Your task to perform on an android device: open app "Etsy: Buy & Sell Unique Items" Image 0: 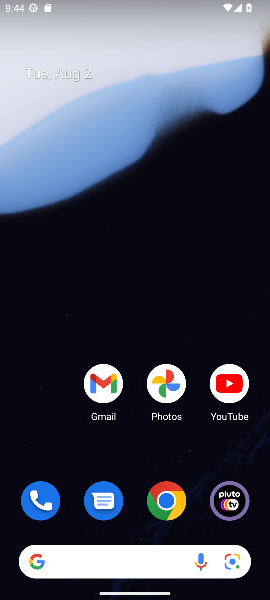
Step 0: drag from (130, 512) to (145, 140)
Your task to perform on an android device: open app "Etsy: Buy & Sell Unique Items" Image 1: 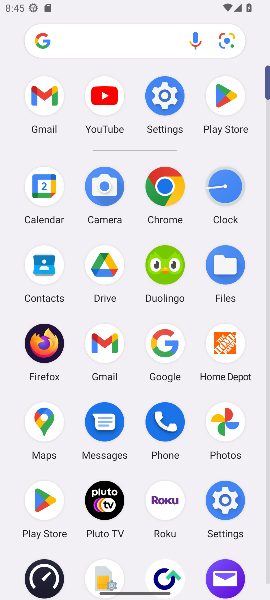
Step 1: click (221, 106)
Your task to perform on an android device: open app "Etsy: Buy & Sell Unique Items" Image 2: 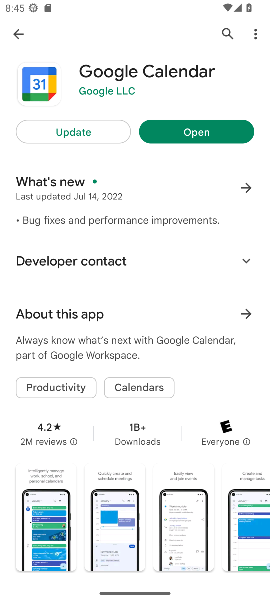
Step 2: drag from (124, 453) to (142, 131)
Your task to perform on an android device: open app "Etsy: Buy & Sell Unique Items" Image 3: 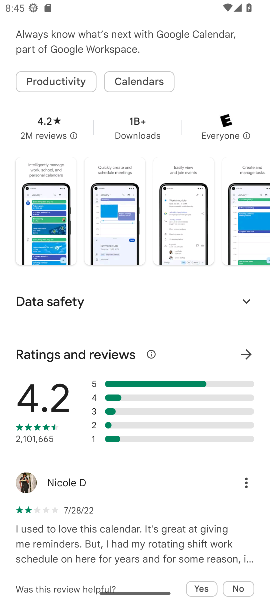
Step 3: drag from (128, 51) to (163, 448)
Your task to perform on an android device: open app "Etsy: Buy & Sell Unique Items" Image 4: 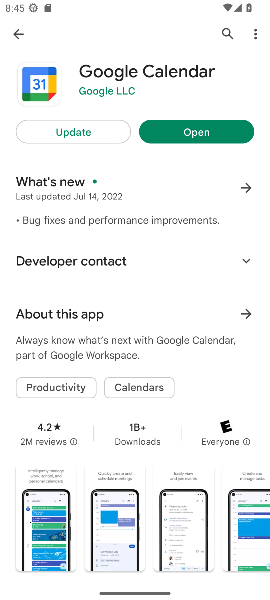
Step 4: drag from (156, 461) to (164, 185)
Your task to perform on an android device: open app "Etsy: Buy & Sell Unique Items" Image 5: 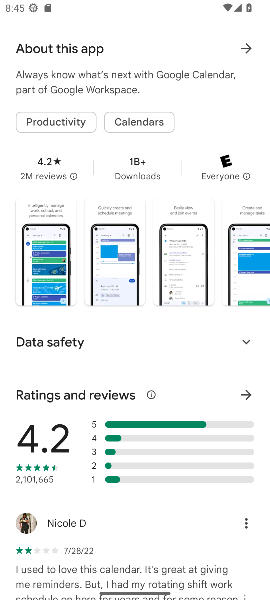
Step 5: drag from (88, 181) to (268, 564)
Your task to perform on an android device: open app "Etsy: Buy & Sell Unique Items" Image 6: 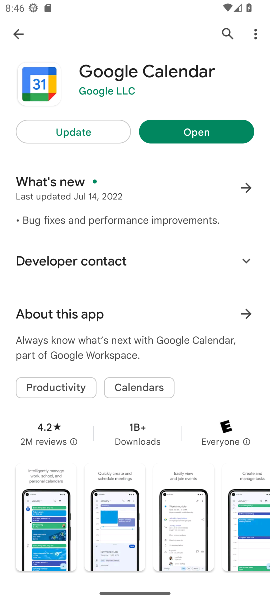
Step 6: drag from (107, 442) to (142, 179)
Your task to perform on an android device: open app "Etsy: Buy & Sell Unique Items" Image 7: 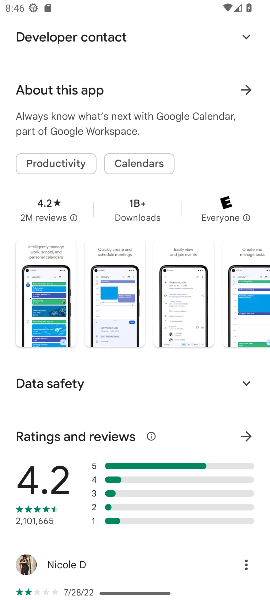
Step 7: drag from (136, 164) to (215, 594)
Your task to perform on an android device: open app "Etsy: Buy & Sell Unique Items" Image 8: 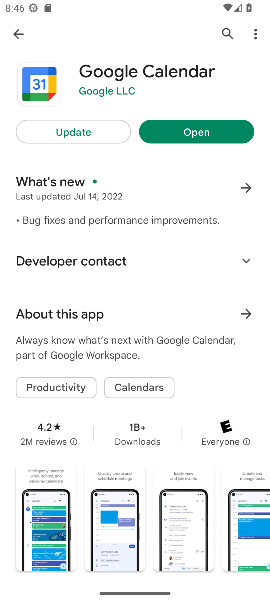
Step 8: click (221, 33)
Your task to perform on an android device: open app "Etsy: Buy & Sell Unique Items" Image 9: 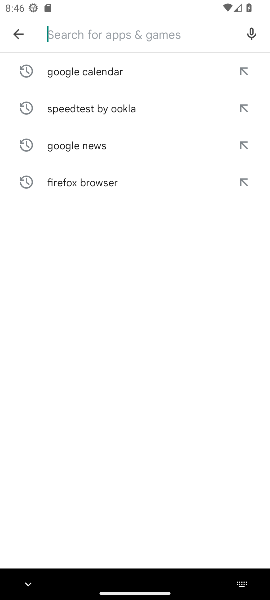
Step 9: type "Etsy: Buy & Sell Unique Items"
Your task to perform on an android device: open app "Etsy: Buy & Sell Unique Items" Image 10: 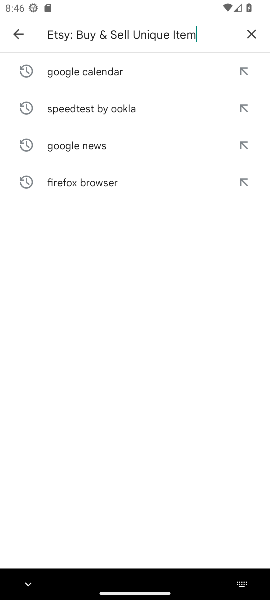
Step 10: type ""
Your task to perform on an android device: open app "Etsy: Buy & Sell Unique Items" Image 11: 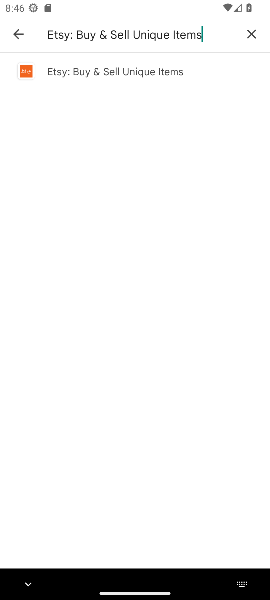
Step 11: click (109, 68)
Your task to perform on an android device: open app "Etsy: Buy & Sell Unique Items" Image 12: 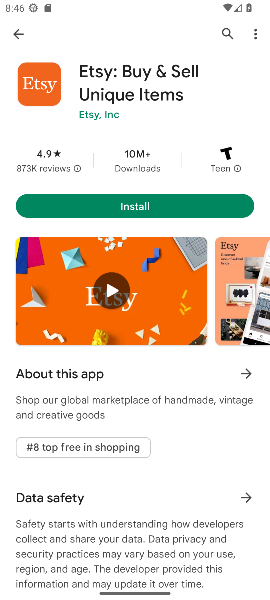
Step 12: task complete